Your task to perform on an android device: Open CNN.com Image 0: 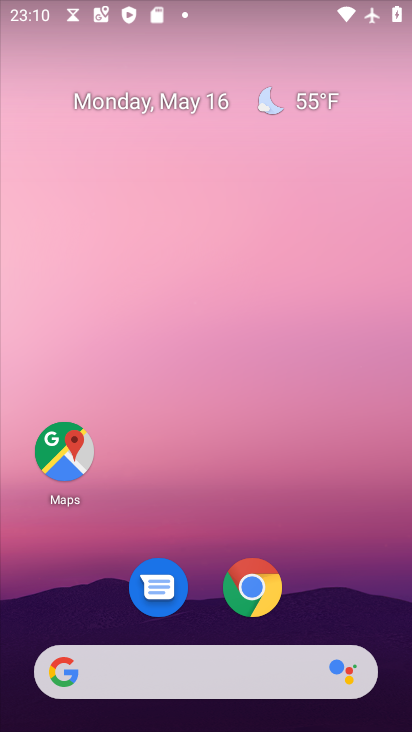
Step 0: drag from (323, 470) to (224, 17)
Your task to perform on an android device: Open CNN.com Image 1: 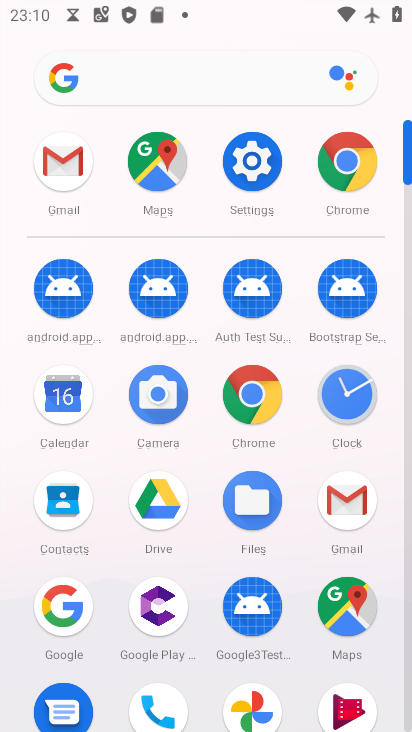
Step 1: click (250, 391)
Your task to perform on an android device: Open CNN.com Image 2: 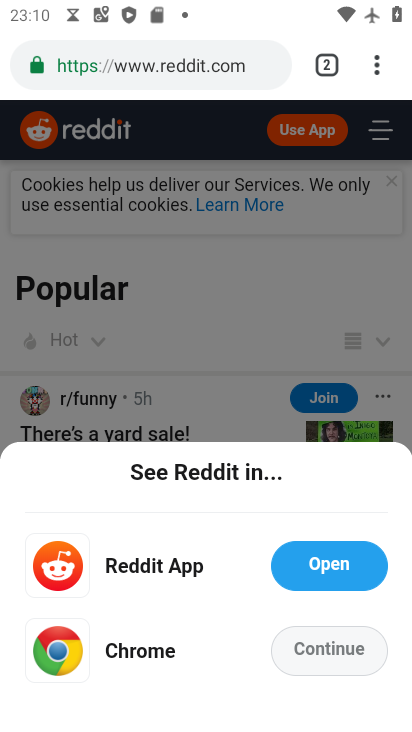
Step 2: click (157, 61)
Your task to perform on an android device: Open CNN.com Image 3: 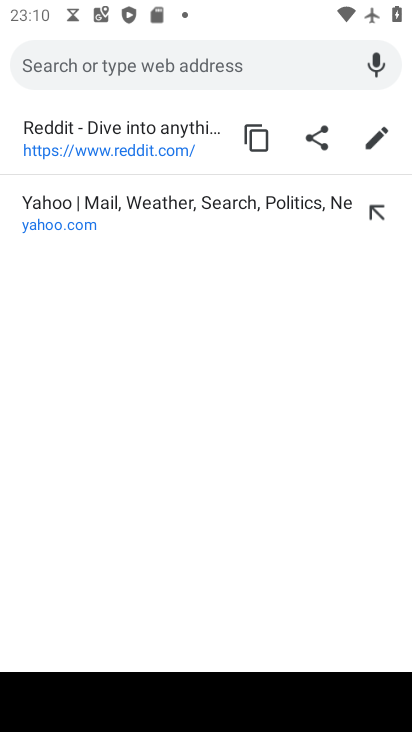
Step 3: type "CNN.com"
Your task to perform on an android device: Open CNN.com Image 4: 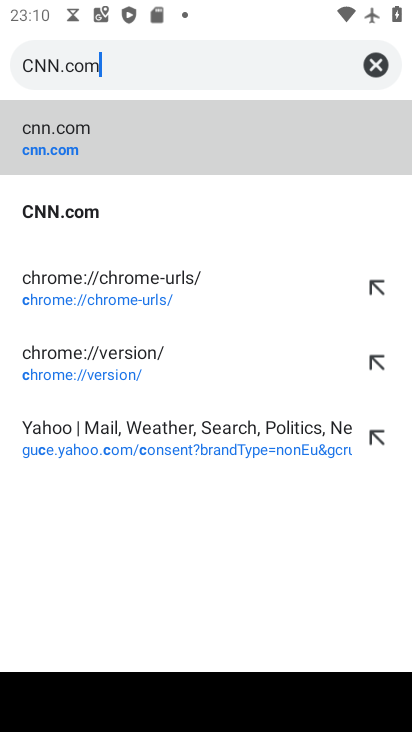
Step 4: type ""
Your task to perform on an android device: Open CNN.com Image 5: 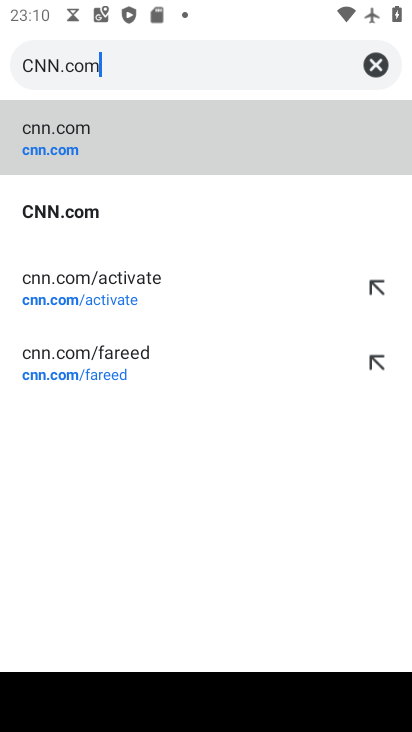
Step 5: click (129, 141)
Your task to perform on an android device: Open CNN.com Image 6: 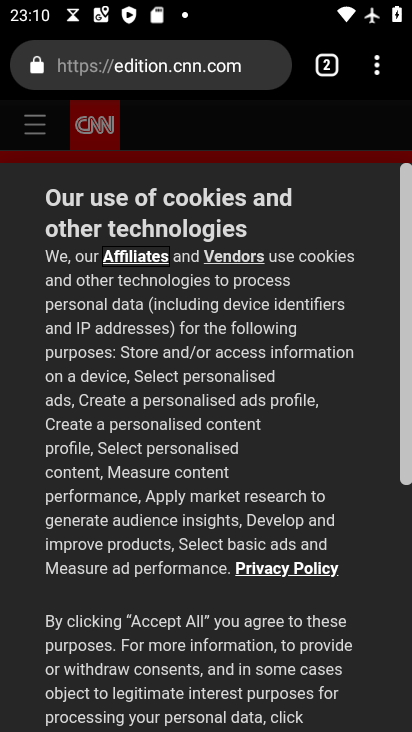
Step 6: drag from (249, 623) to (264, 204)
Your task to perform on an android device: Open CNN.com Image 7: 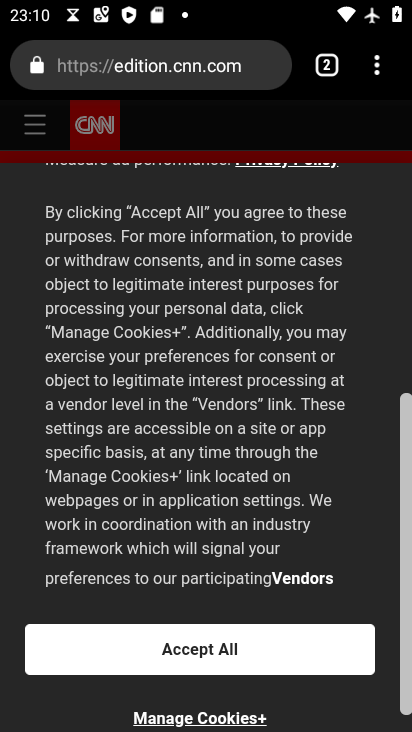
Step 7: click (226, 648)
Your task to perform on an android device: Open CNN.com Image 8: 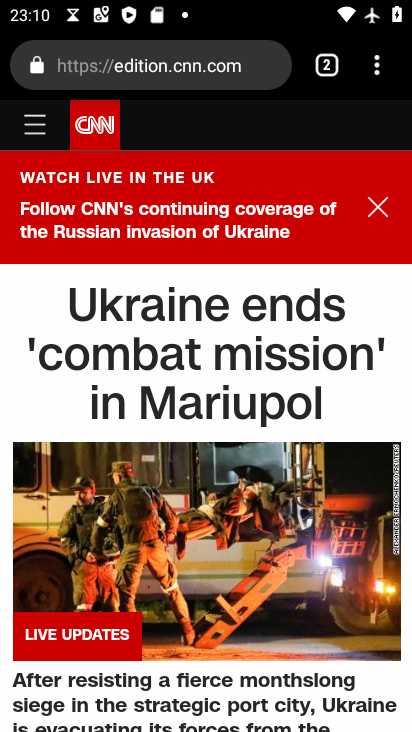
Step 8: task complete